Your task to perform on an android device: toggle sleep mode Image 0: 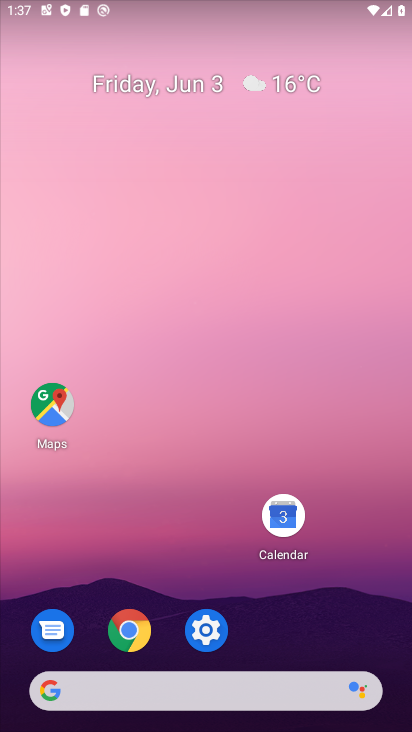
Step 0: drag from (259, 722) to (181, 122)
Your task to perform on an android device: toggle sleep mode Image 1: 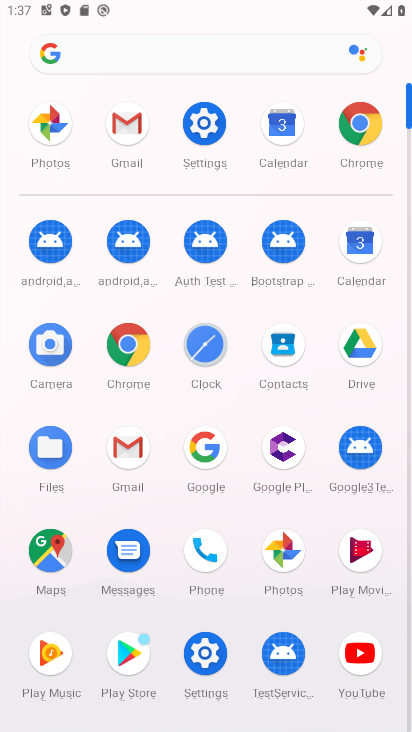
Step 1: click (215, 661)
Your task to perform on an android device: toggle sleep mode Image 2: 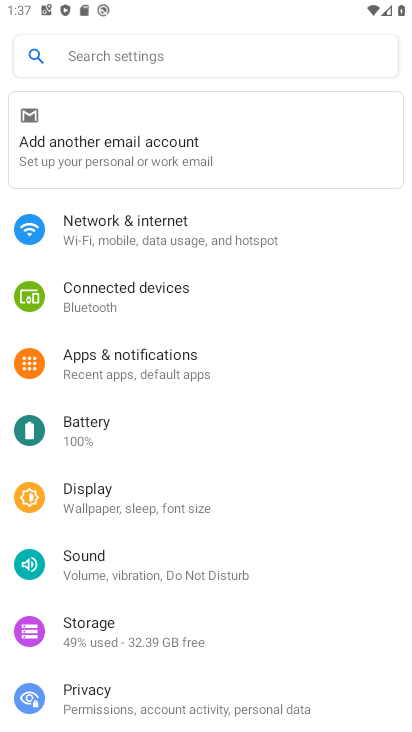
Step 2: click (152, 62)
Your task to perform on an android device: toggle sleep mode Image 3: 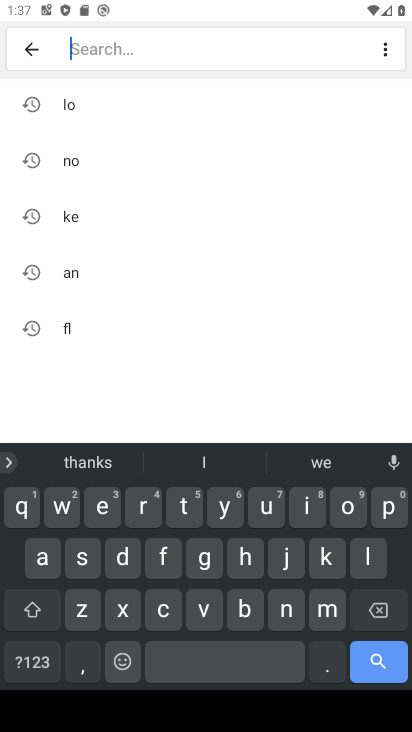
Step 3: click (82, 560)
Your task to perform on an android device: toggle sleep mode Image 4: 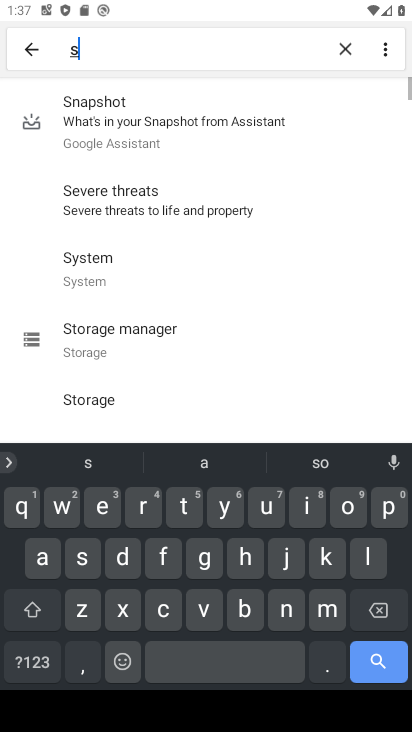
Step 4: click (373, 564)
Your task to perform on an android device: toggle sleep mode Image 5: 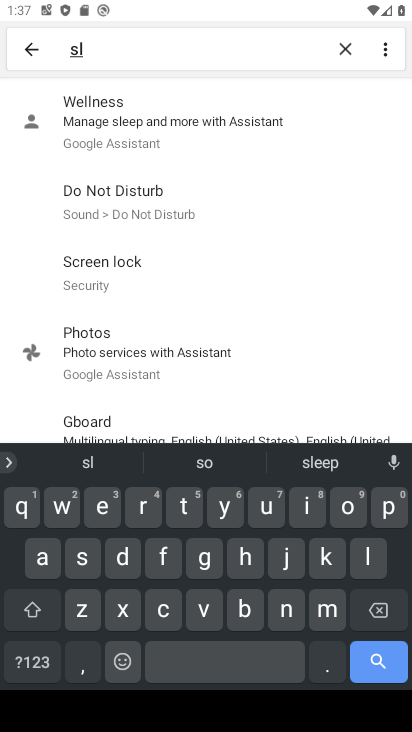
Step 5: click (163, 128)
Your task to perform on an android device: toggle sleep mode Image 6: 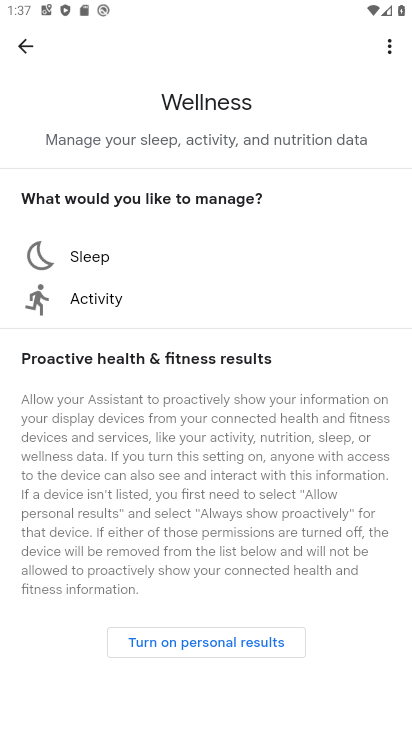
Step 6: click (80, 252)
Your task to perform on an android device: toggle sleep mode Image 7: 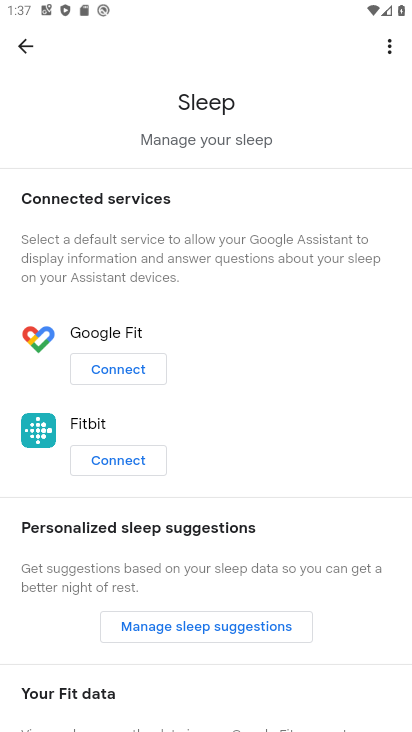
Step 7: task complete